Your task to perform on an android device: Go to sound settings Image 0: 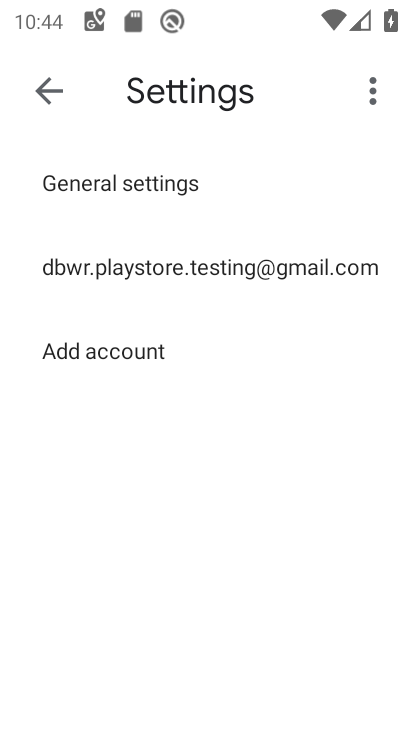
Step 0: press home button
Your task to perform on an android device: Go to sound settings Image 1: 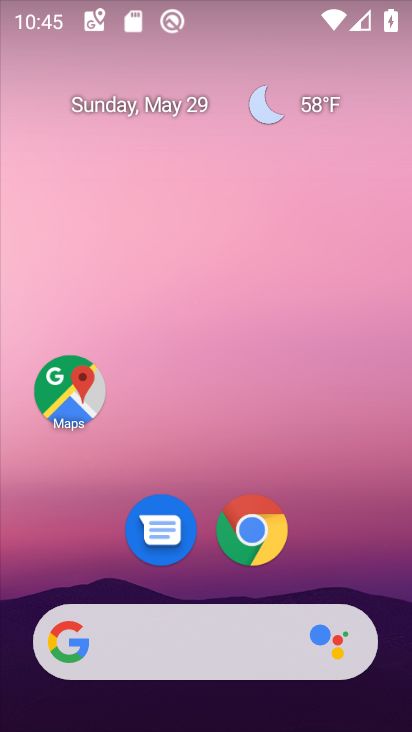
Step 1: drag from (200, 654) to (263, 20)
Your task to perform on an android device: Go to sound settings Image 2: 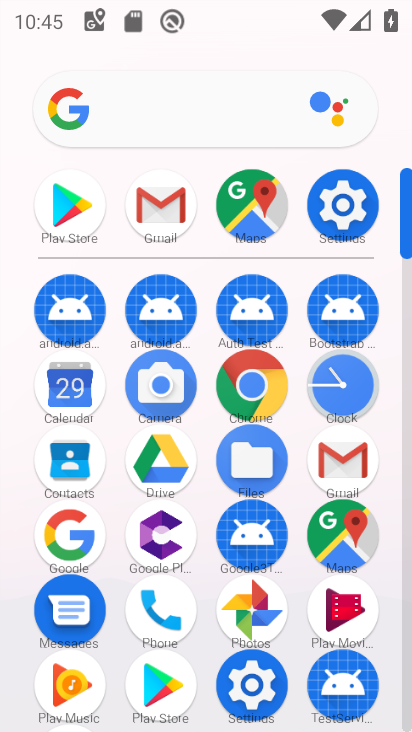
Step 2: click (345, 208)
Your task to perform on an android device: Go to sound settings Image 3: 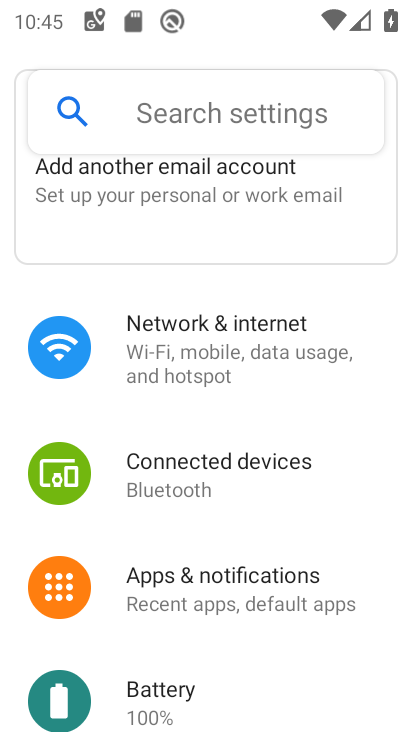
Step 3: drag from (230, 593) to (70, 87)
Your task to perform on an android device: Go to sound settings Image 4: 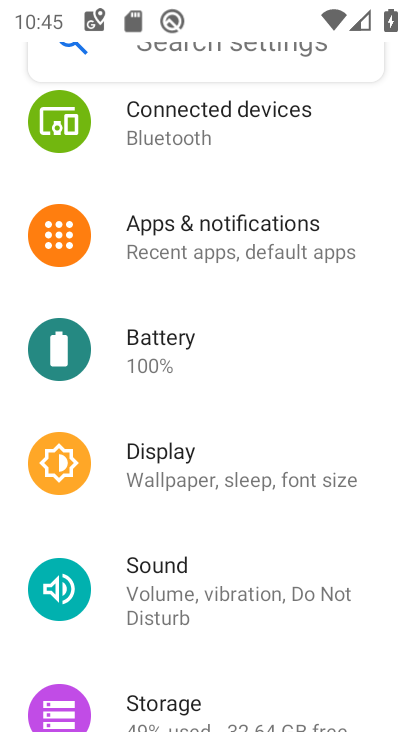
Step 4: click (150, 604)
Your task to perform on an android device: Go to sound settings Image 5: 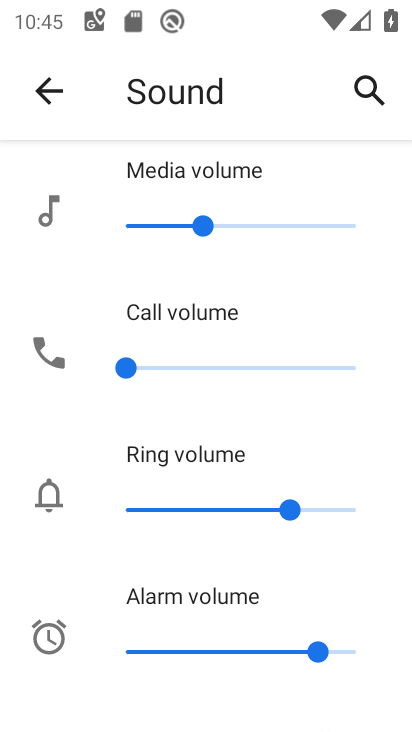
Step 5: task complete